Your task to perform on an android device: Search for Mexican restaurants on Maps Image 0: 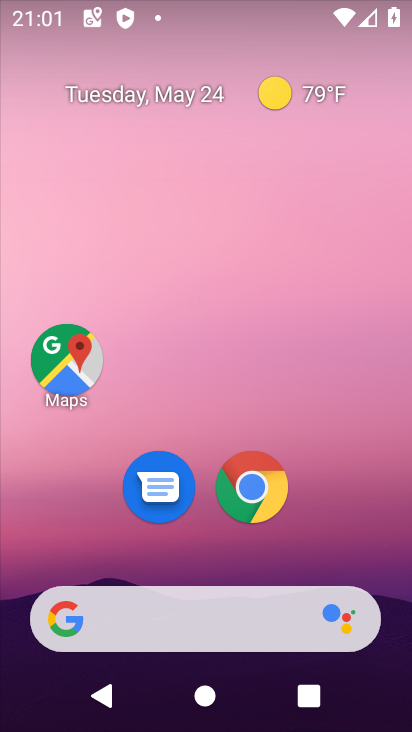
Step 0: press home button
Your task to perform on an android device: Search for Mexican restaurants on Maps Image 1: 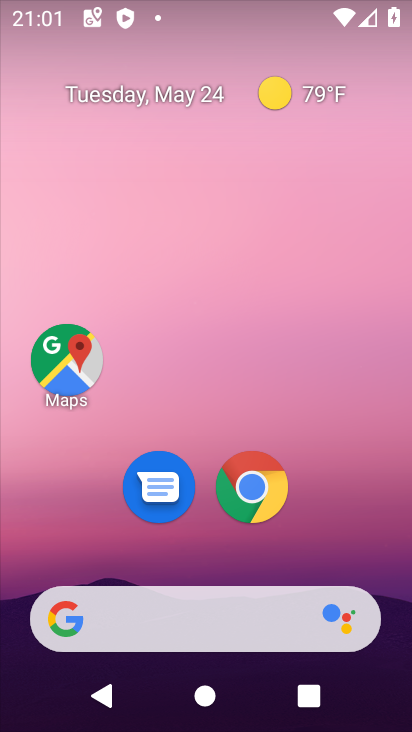
Step 1: click (55, 372)
Your task to perform on an android device: Search for Mexican restaurants on Maps Image 2: 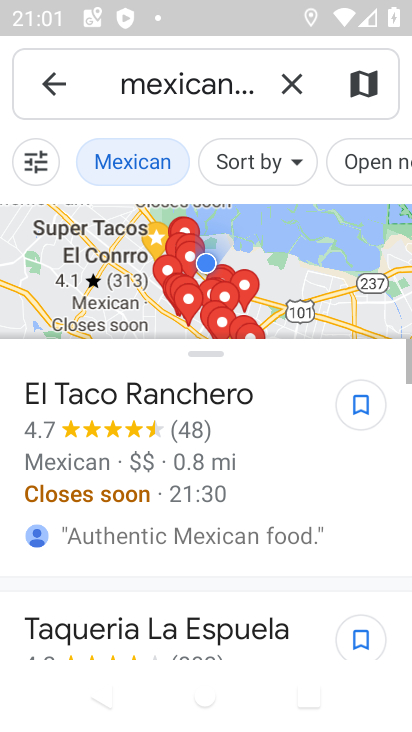
Step 2: task complete